Your task to perform on an android device: Open display settings Image 0: 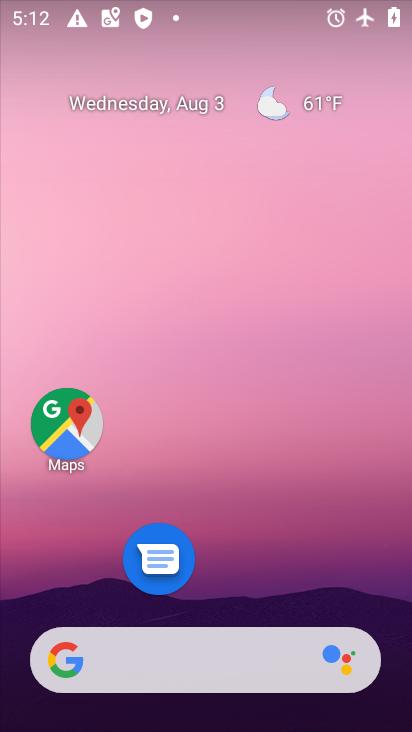
Step 0: drag from (211, 636) to (249, 202)
Your task to perform on an android device: Open display settings Image 1: 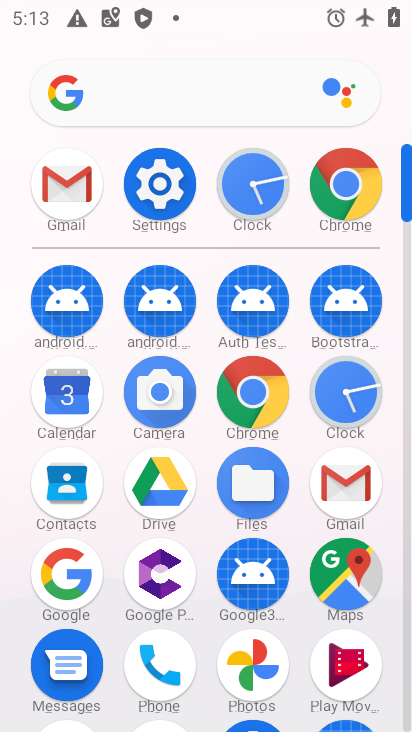
Step 1: click (159, 183)
Your task to perform on an android device: Open display settings Image 2: 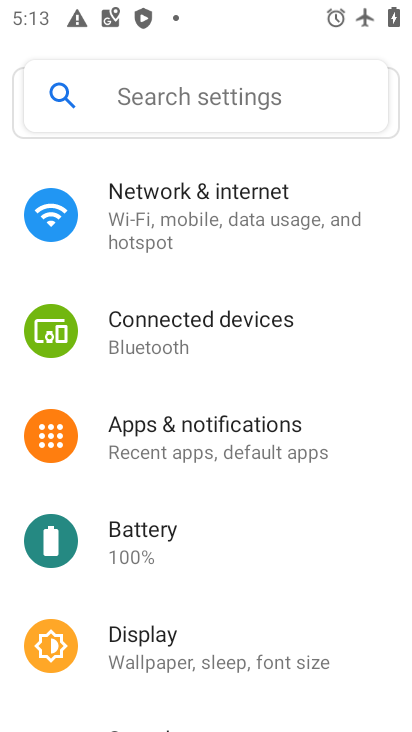
Step 2: click (158, 652)
Your task to perform on an android device: Open display settings Image 3: 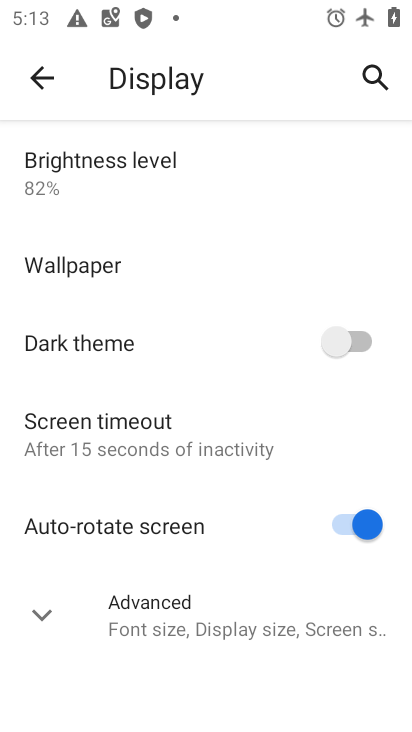
Step 3: click (145, 610)
Your task to perform on an android device: Open display settings Image 4: 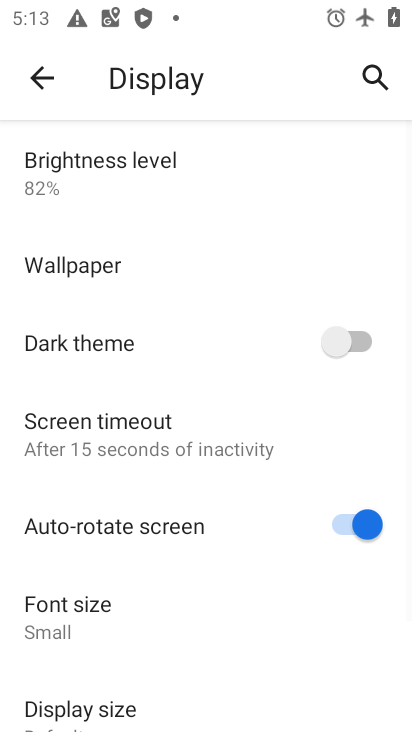
Step 4: task complete